Your task to perform on an android device: visit the assistant section in the google photos Image 0: 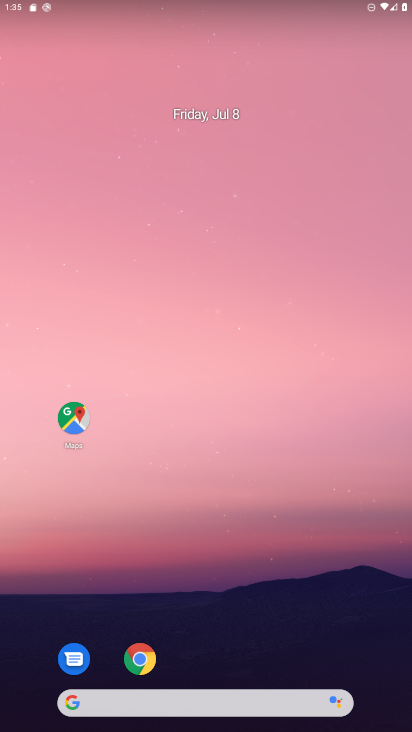
Step 0: drag from (226, 669) to (256, 189)
Your task to perform on an android device: visit the assistant section in the google photos Image 1: 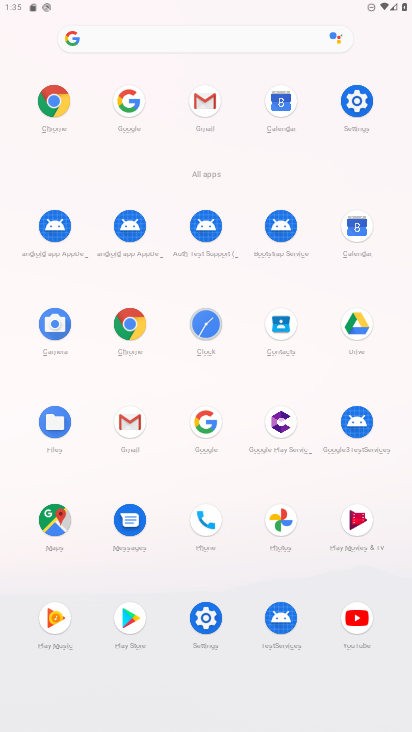
Step 1: click (283, 520)
Your task to perform on an android device: visit the assistant section in the google photos Image 2: 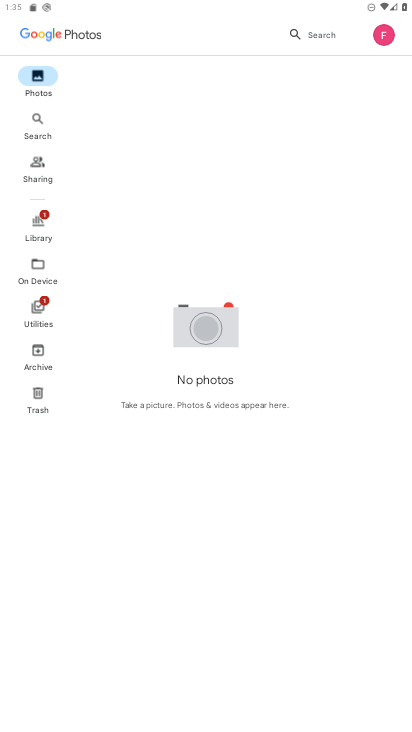
Step 2: click (386, 36)
Your task to perform on an android device: visit the assistant section in the google photos Image 3: 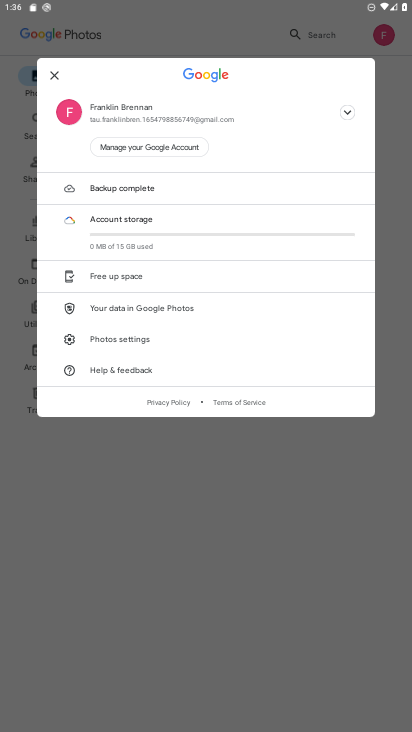
Step 3: click (56, 73)
Your task to perform on an android device: visit the assistant section in the google photos Image 4: 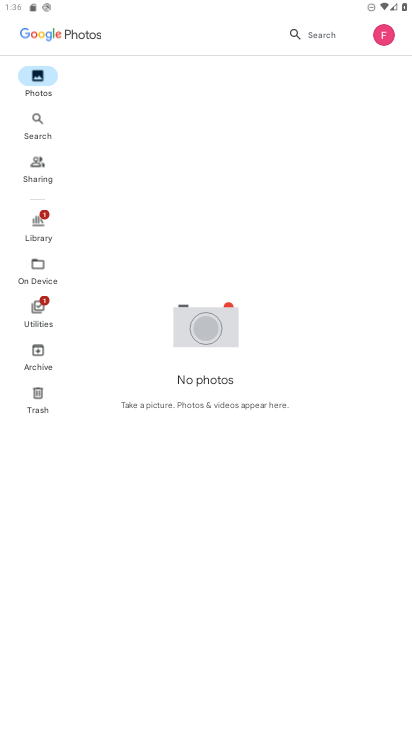
Step 4: task complete